Your task to perform on an android device: Go to ESPN.com Image 0: 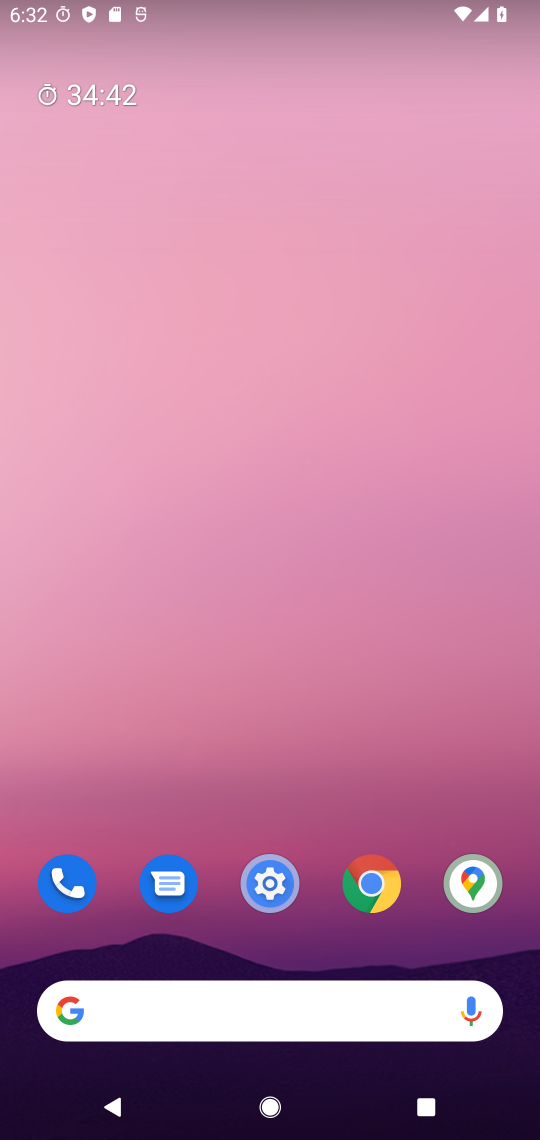
Step 0: click (358, 896)
Your task to perform on an android device: Go to ESPN.com Image 1: 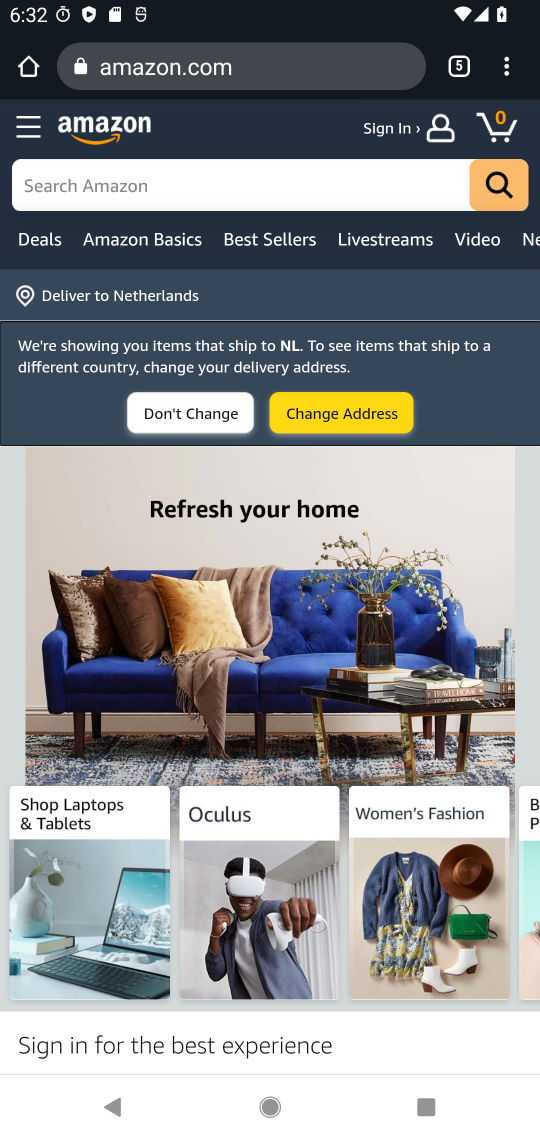
Step 1: click (457, 72)
Your task to perform on an android device: Go to ESPN.com Image 2: 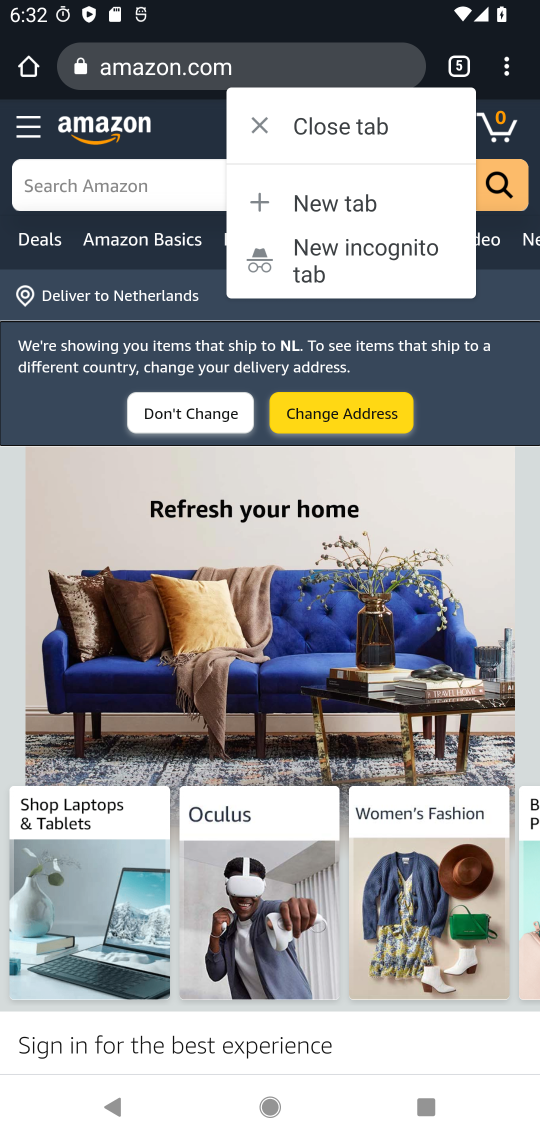
Step 2: click (464, 63)
Your task to perform on an android device: Go to ESPN.com Image 3: 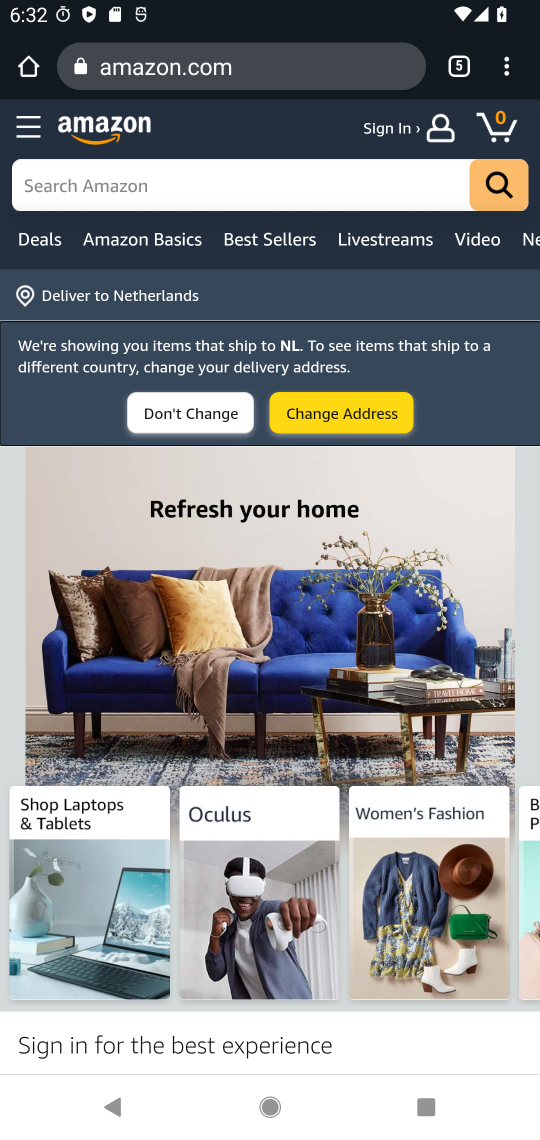
Step 3: click (464, 63)
Your task to perform on an android device: Go to ESPN.com Image 4: 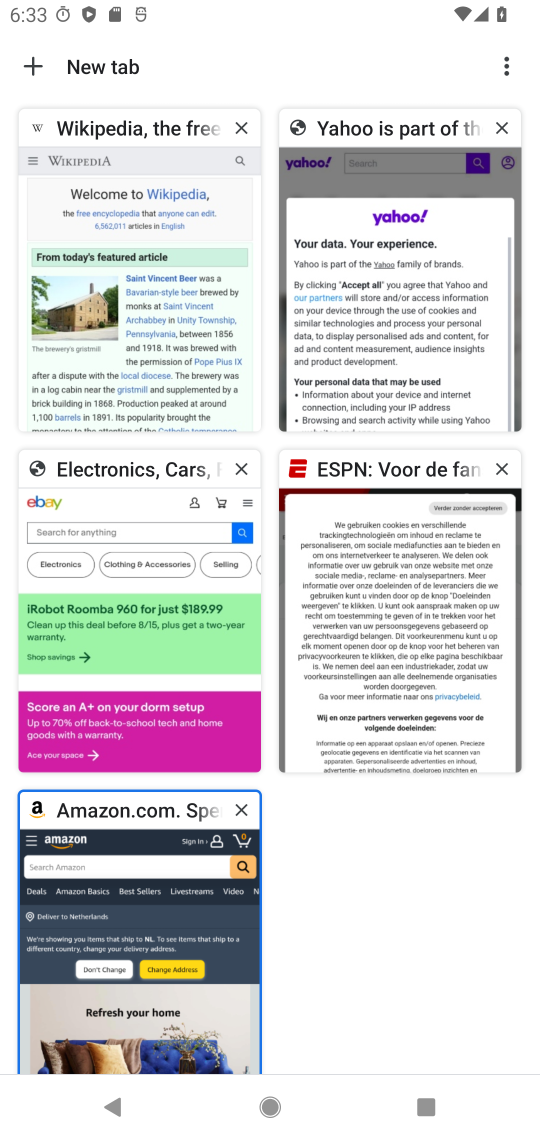
Step 4: click (35, 64)
Your task to perform on an android device: Go to ESPN.com Image 5: 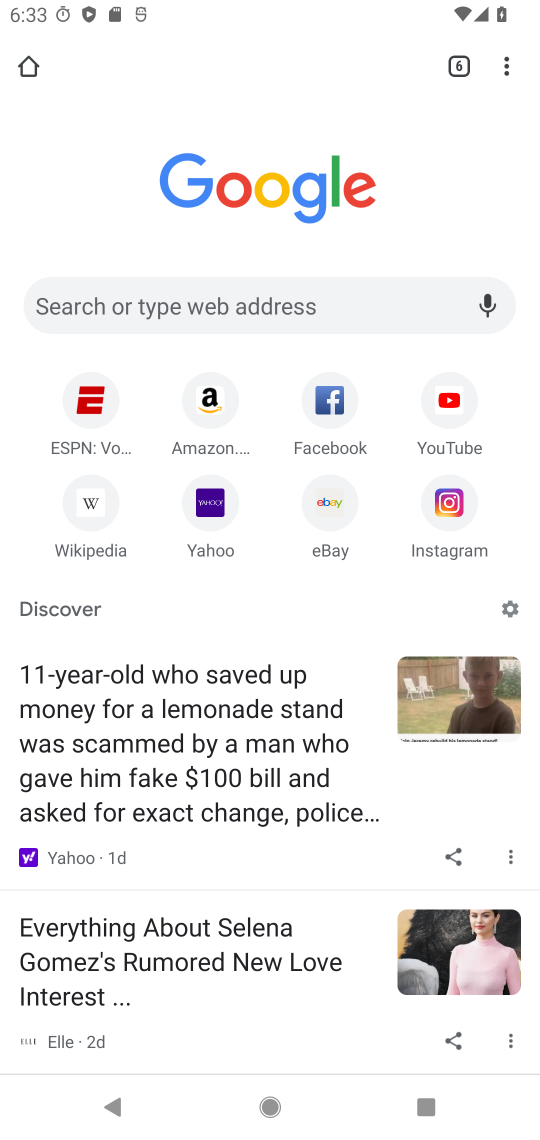
Step 5: click (184, 309)
Your task to perform on an android device: Go to ESPN.com Image 6: 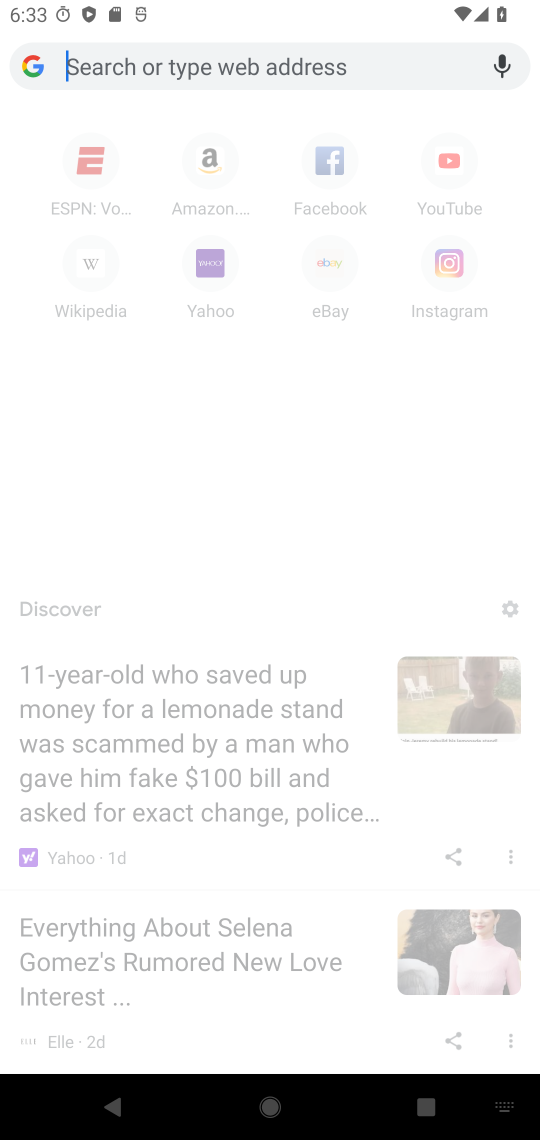
Step 6: type "ESPN.com"
Your task to perform on an android device: Go to ESPN.com Image 7: 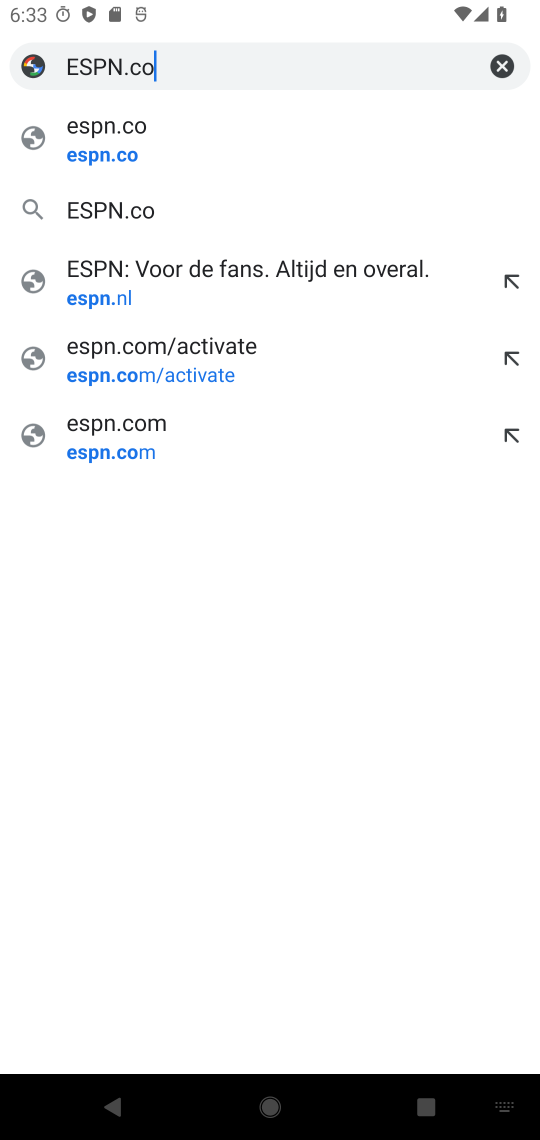
Step 7: type ""
Your task to perform on an android device: Go to ESPN.com Image 8: 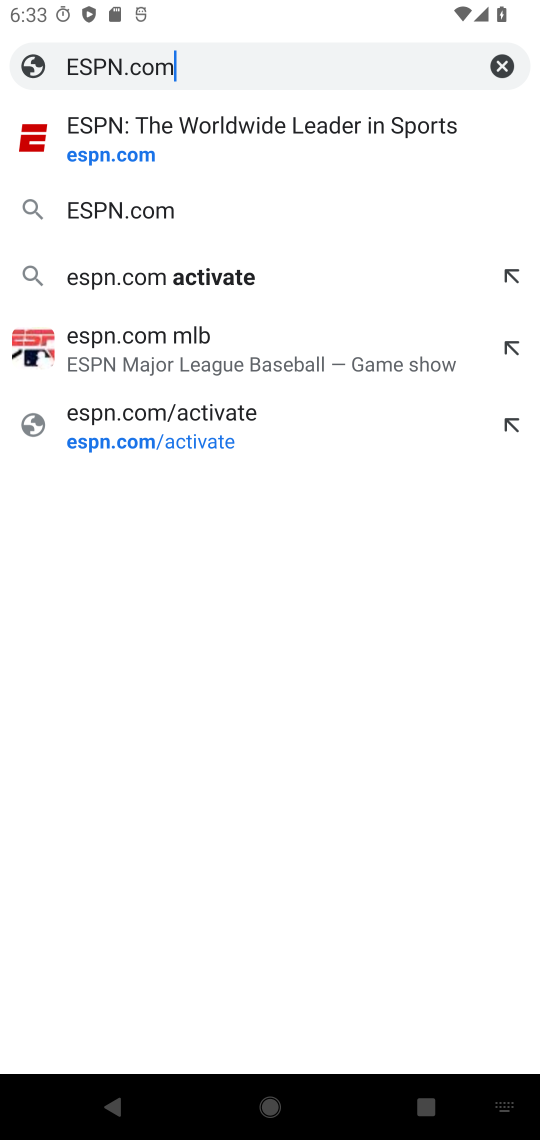
Step 8: click (217, 152)
Your task to perform on an android device: Go to ESPN.com Image 9: 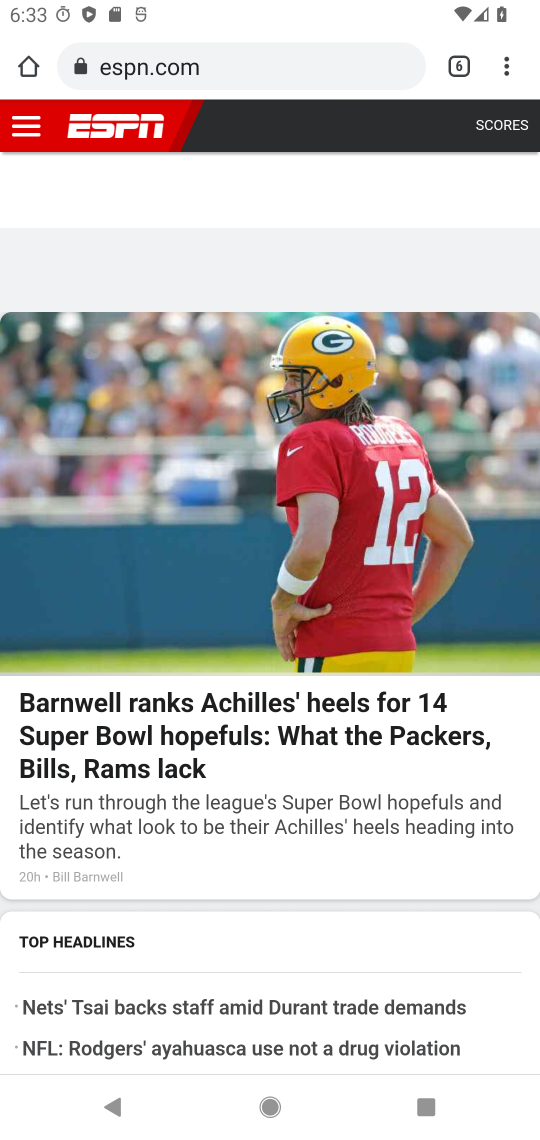
Step 9: task complete